Your task to perform on an android device: turn on translation in the chrome app Image 0: 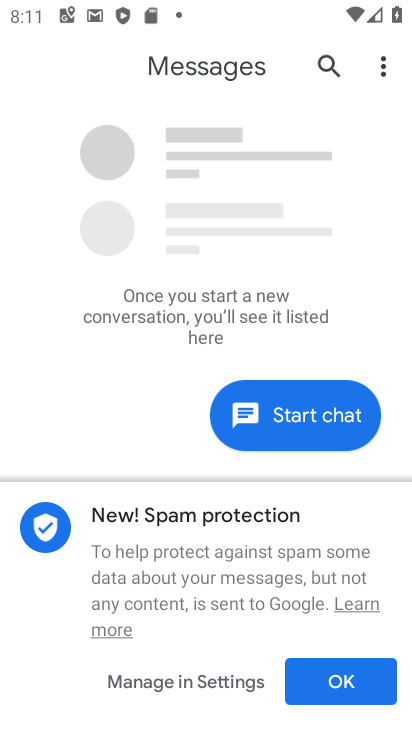
Step 0: press home button
Your task to perform on an android device: turn on translation in the chrome app Image 1: 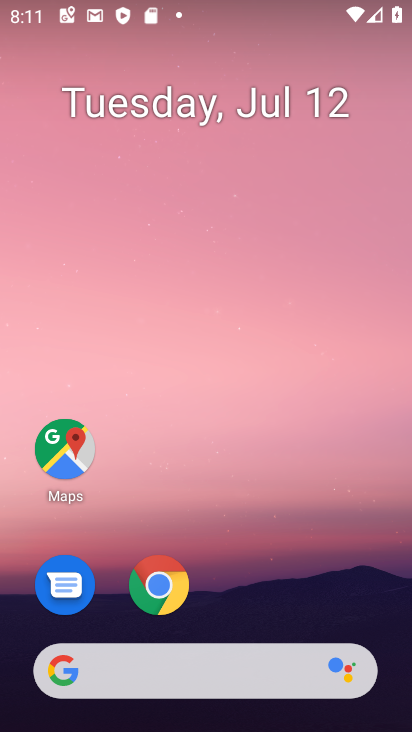
Step 1: click (157, 590)
Your task to perform on an android device: turn on translation in the chrome app Image 2: 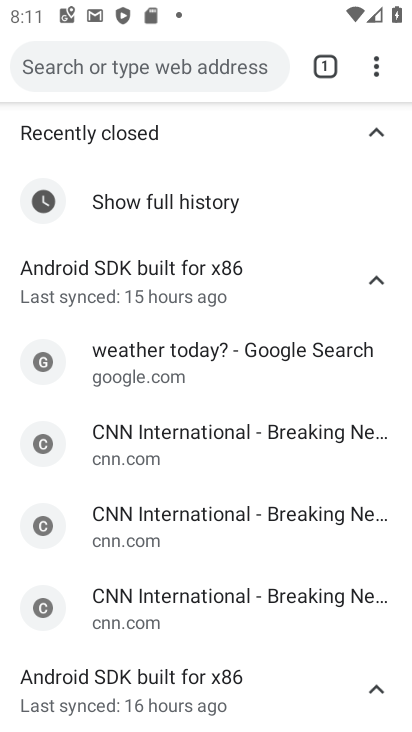
Step 2: click (372, 70)
Your task to perform on an android device: turn on translation in the chrome app Image 3: 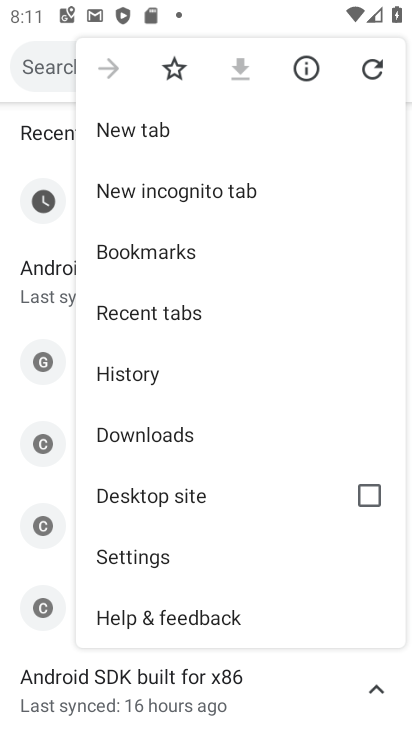
Step 3: click (141, 556)
Your task to perform on an android device: turn on translation in the chrome app Image 4: 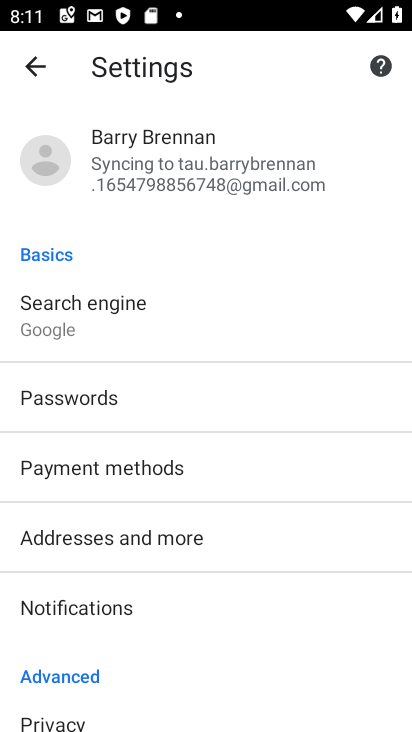
Step 4: drag from (264, 533) to (327, 160)
Your task to perform on an android device: turn on translation in the chrome app Image 5: 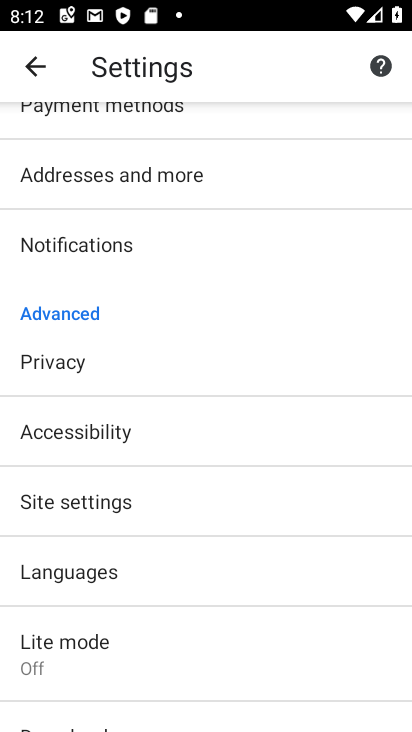
Step 5: click (147, 572)
Your task to perform on an android device: turn on translation in the chrome app Image 6: 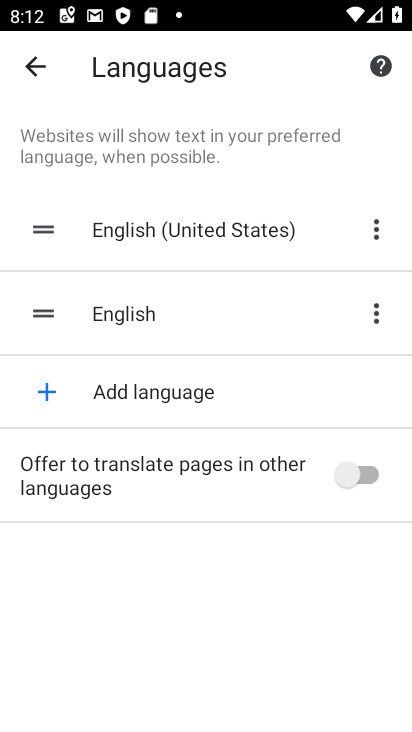
Step 6: click (356, 473)
Your task to perform on an android device: turn on translation in the chrome app Image 7: 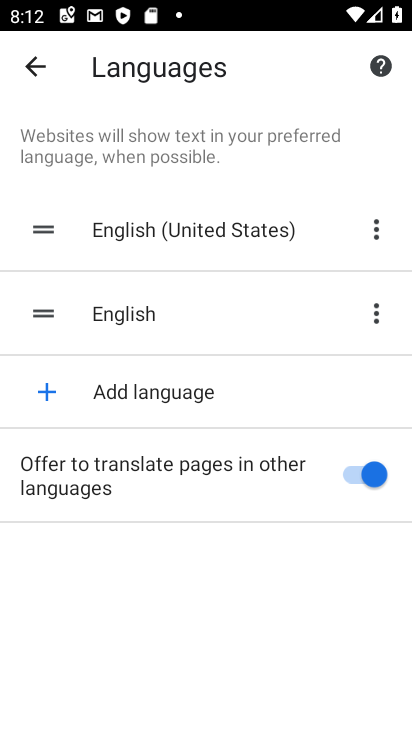
Step 7: task complete